Your task to perform on an android device: make emails show in primary in the gmail app Image 0: 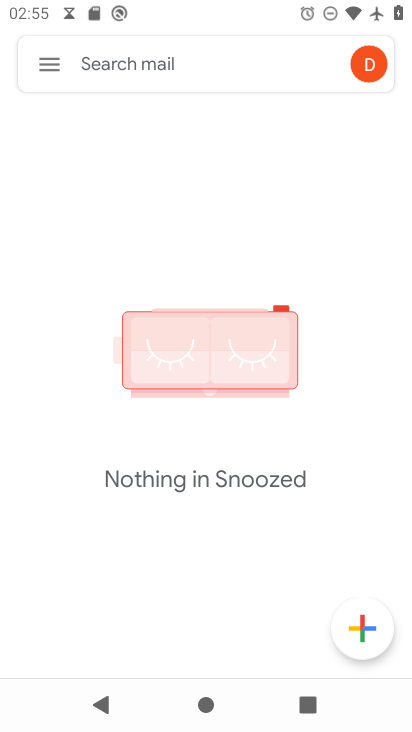
Step 0: press home button
Your task to perform on an android device: make emails show in primary in the gmail app Image 1: 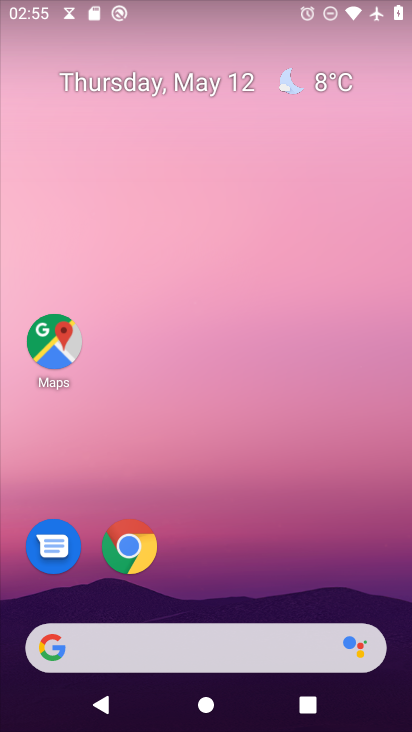
Step 1: drag from (200, 650) to (292, 146)
Your task to perform on an android device: make emails show in primary in the gmail app Image 2: 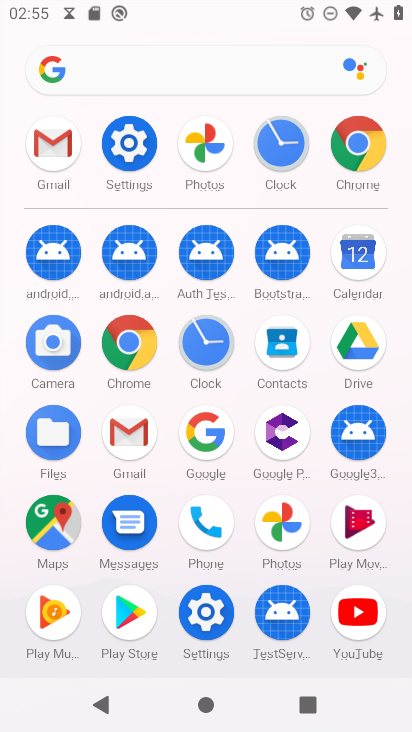
Step 2: click (52, 158)
Your task to perform on an android device: make emails show in primary in the gmail app Image 3: 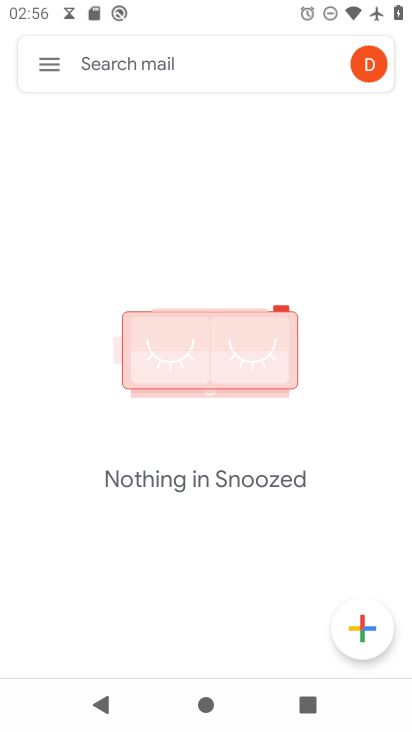
Step 3: click (54, 62)
Your task to perform on an android device: make emails show in primary in the gmail app Image 4: 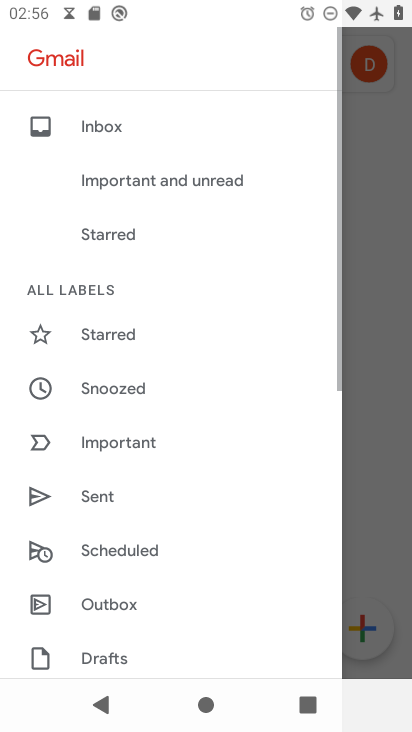
Step 4: drag from (171, 621) to (281, 160)
Your task to perform on an android device: make emails show in primary in the gmail app Image 5: 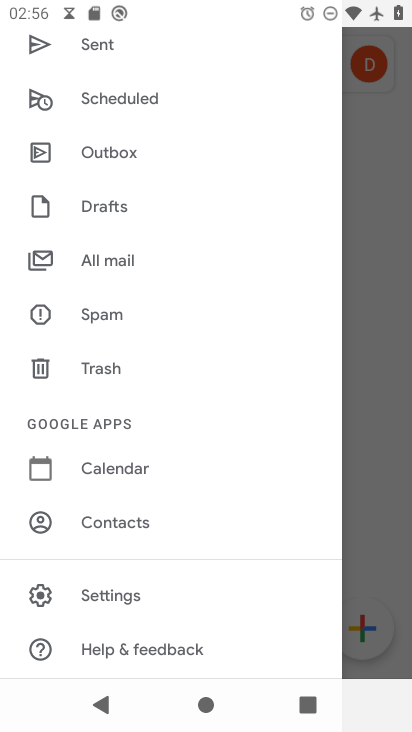
Step 5: click (122, 594)
Your task to perform on an android device: make emails show in primary in the gmail app Image 6: 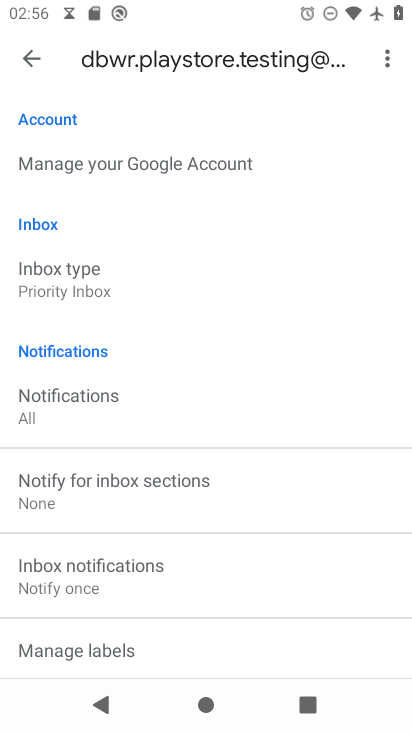
Step 6: task complete